Your task to perform on an android device: Open the phone app and click the voicemail tab. Image 0: 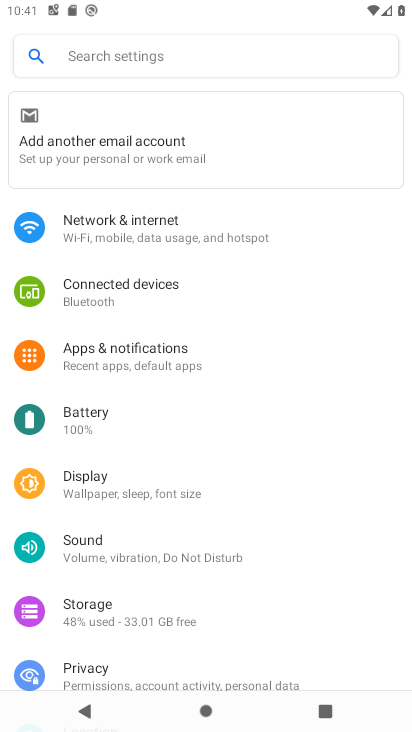
Step 0: press home button
Your task to perform on an android device: Open the phone app and click the voicemail tab. Image 1: 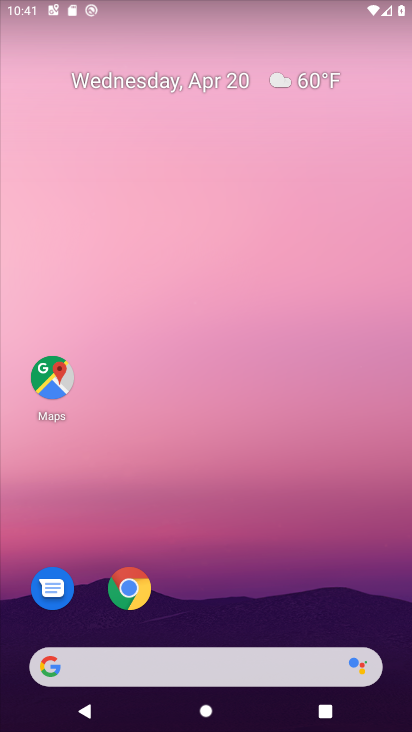
Step 1: drag from (237, 590) to (157, 183)
Your task to perform on an android device: Open the phone app and click the voicemail tab. Image 2: 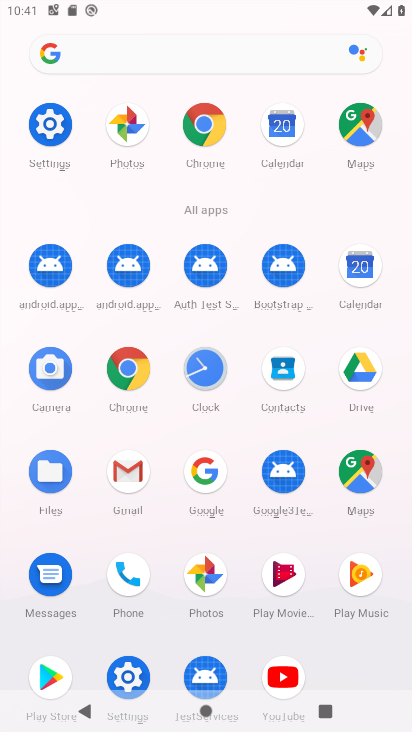
Step 2: click (125, 583)
Your task to perform on an android device: Open the phone app and click the voicemail tab. Image 3: 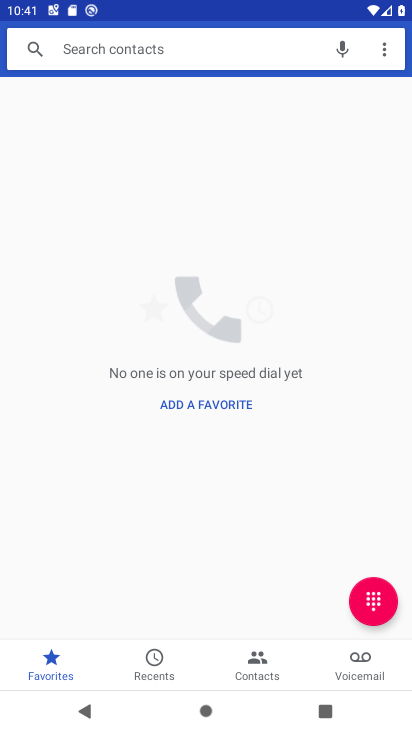
Step 3: click (353, 664)
Your task to perform on an android device: Open the phone app and click the voicemail tab. Image 4: 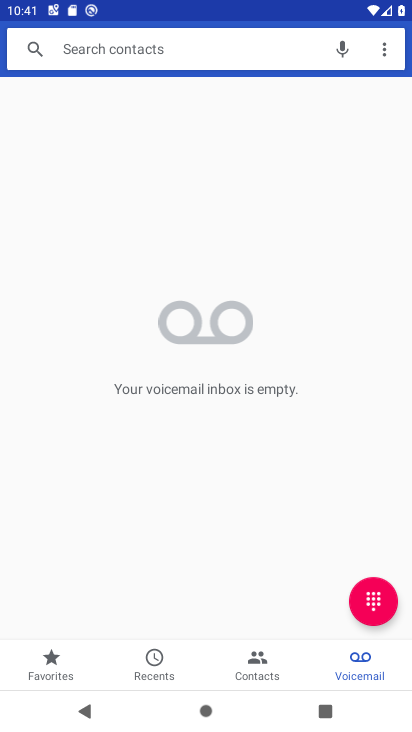
Step 4: task complete